Your task to perform on an android device: Open Android settings Image 0: 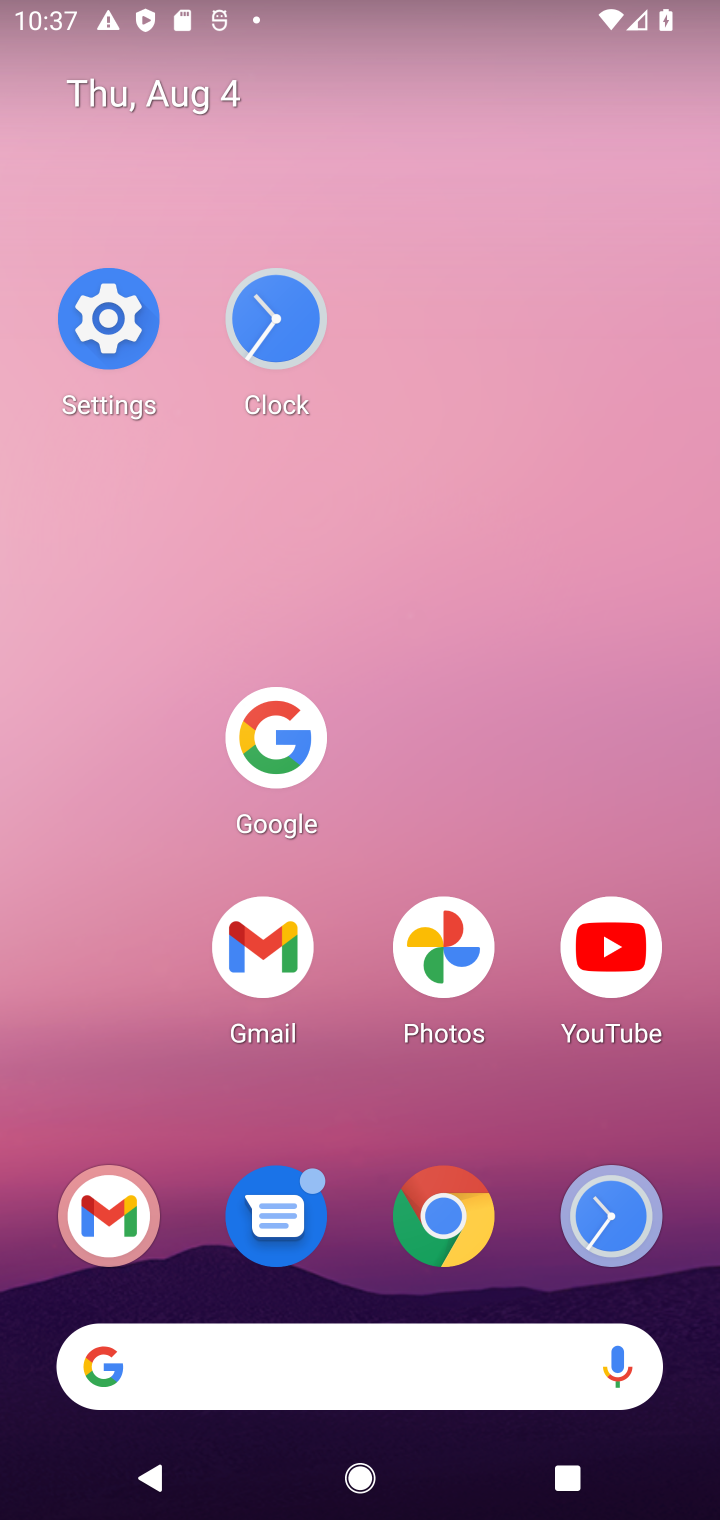
Step 0: click (86, 324)
Your task to perform on an android device: Open Android settings Image 1: 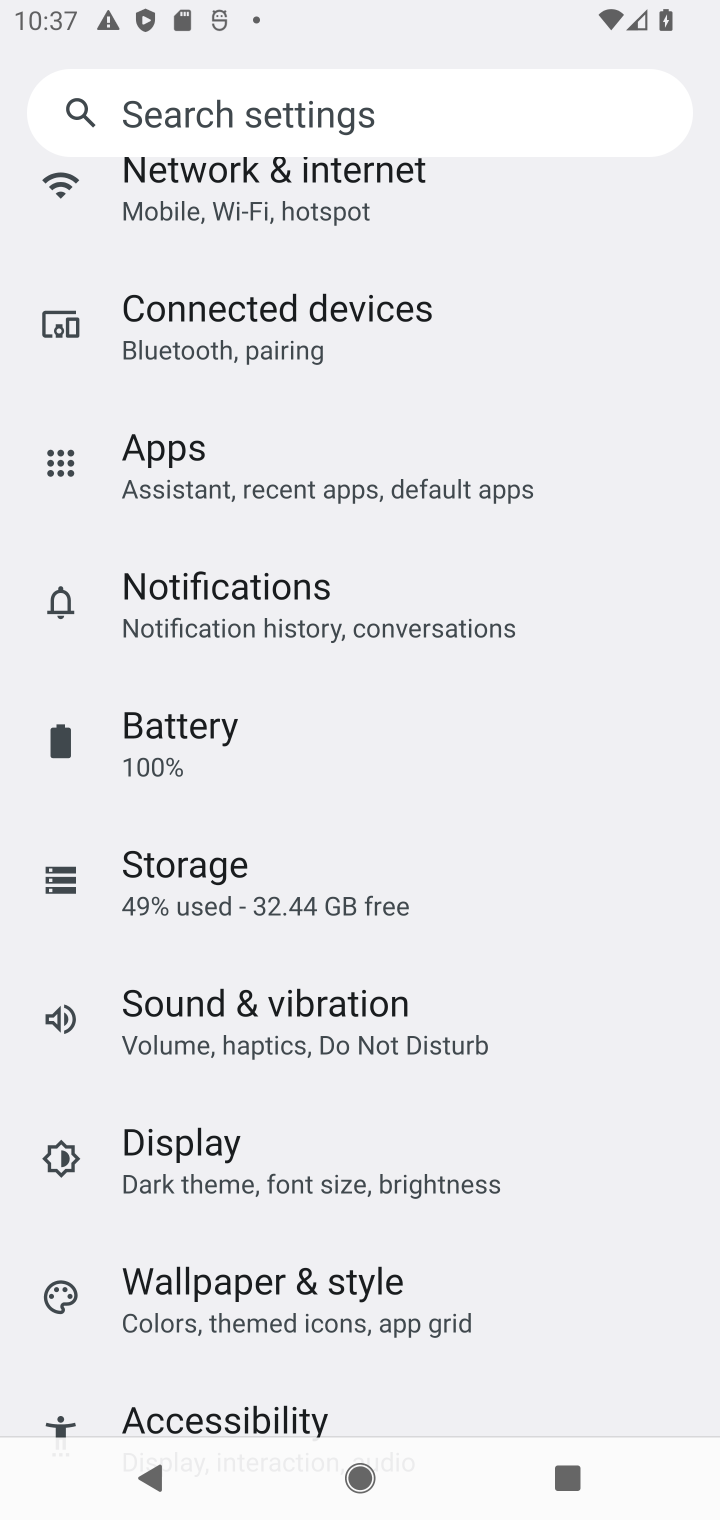
Step 1: task complete